Your task to perform on an android device: turn on airplane mode Image 0: 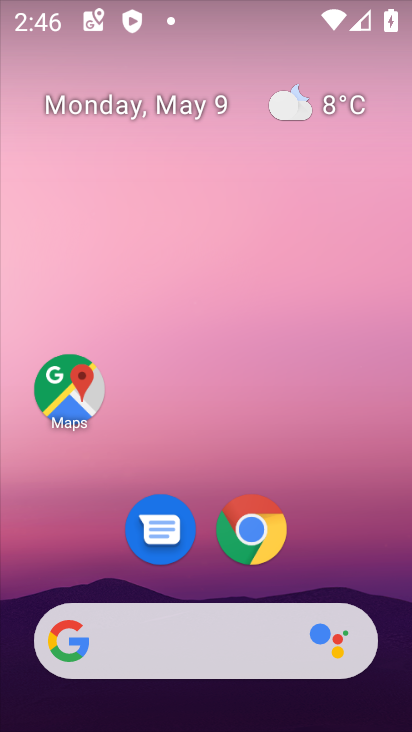
Step 0: drag from (275, 611) to (270, 77)
Your task to perform on an android device: turn on airplane mode Image 1: 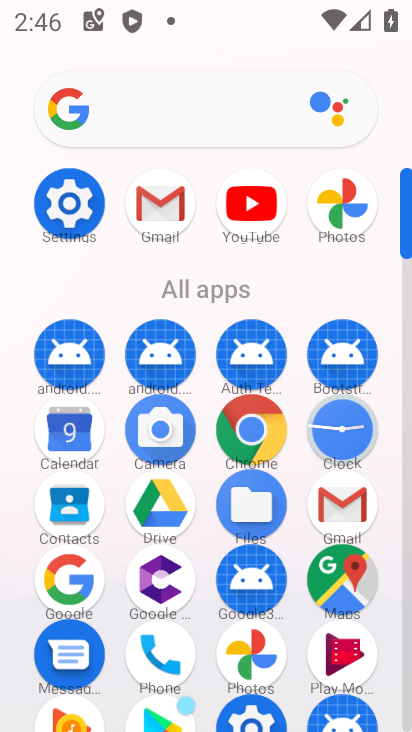
Step 1: click (77, 210)
Your task to perform on an android device: turn on airplane mode Image 2: 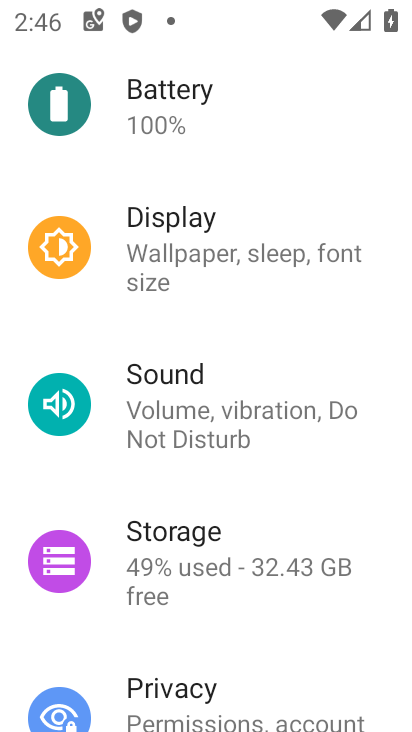
Step 2: drag from (311, 135) to (301, 540)
Your task to perform on an android device: turn on airplane mode Image 3: 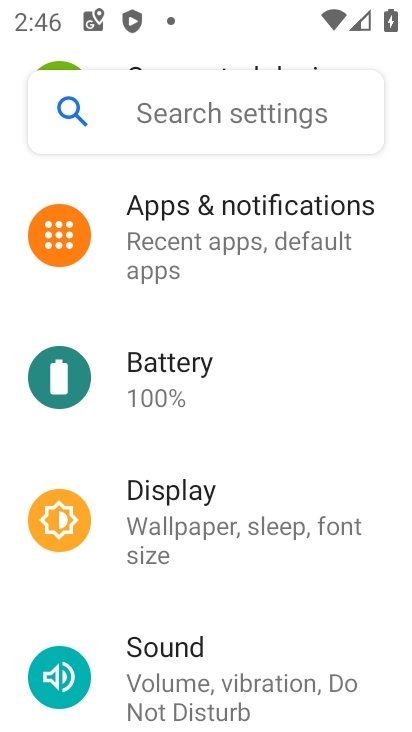
Step 3: drag from (303, 230) to (309, 709)
Your task to perform on an android device: turn on airplane mode Image 4: 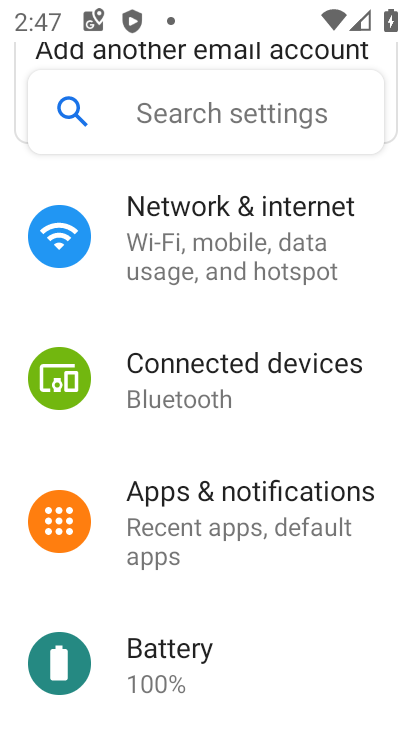
Step 4: drag from (318, 284) to (249, 721)
Your task to perform on an android device: turn on airplane mode Image 5: 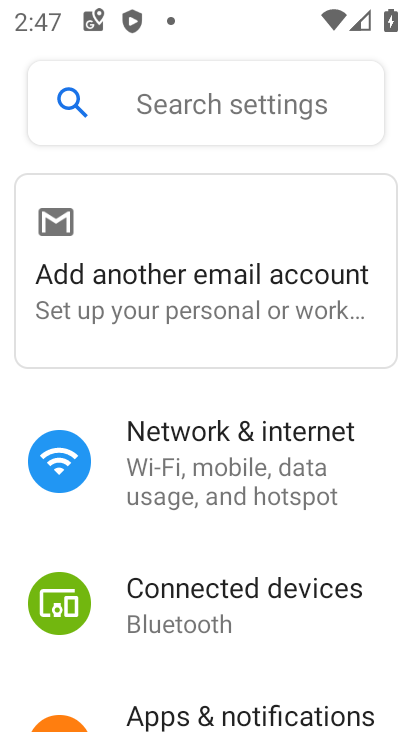
Step 5: click (292, 489)
Your task to perform on an android device: turn on airplane mode Image 6: 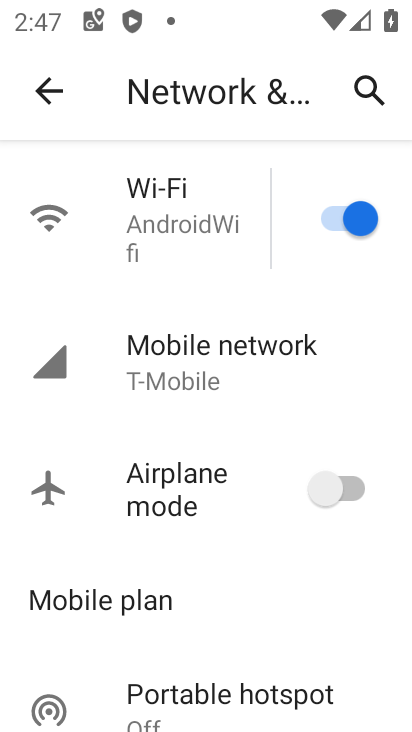
Step 6: click (356, 487)
Your task to perform on an android device: turn on airplane mode Image 7: 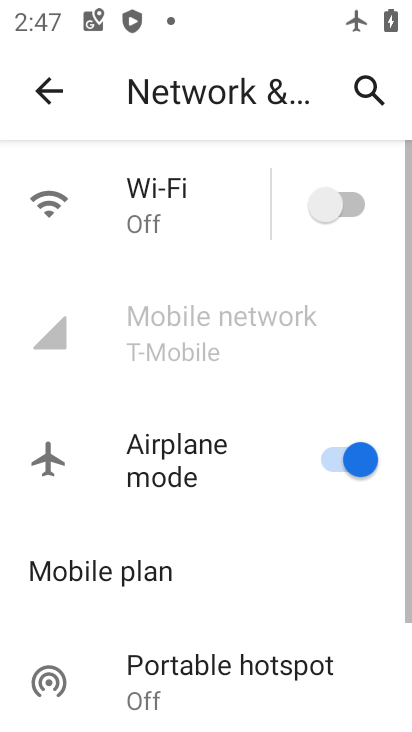
Step 7: task complete